Your task to perform on an android device: toggle notification dots Image 0: 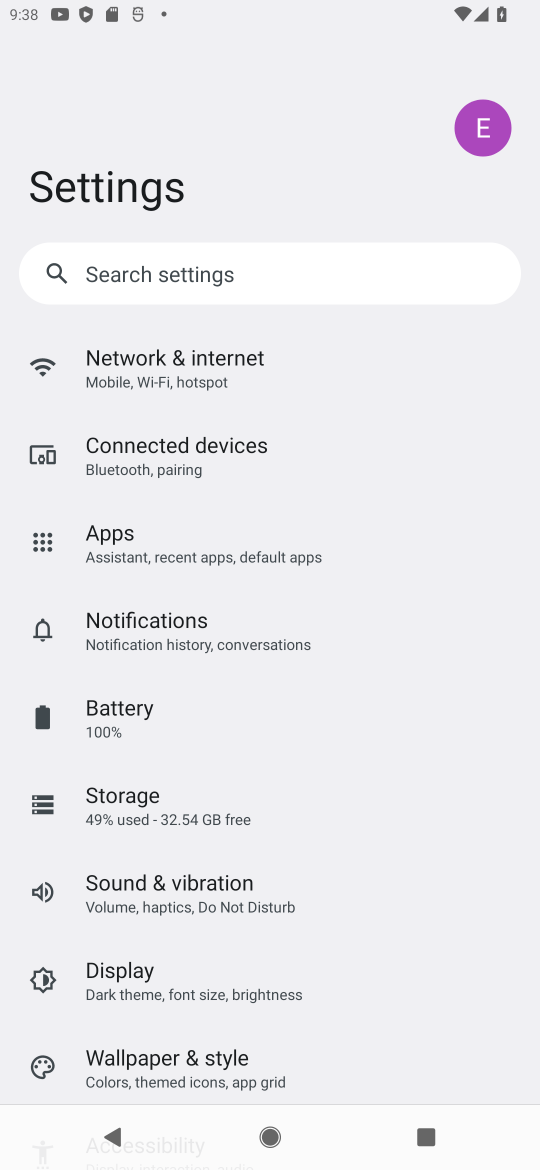
Step 0: press home button
Your task to perform on an android device: toggle notification dots Image 1: 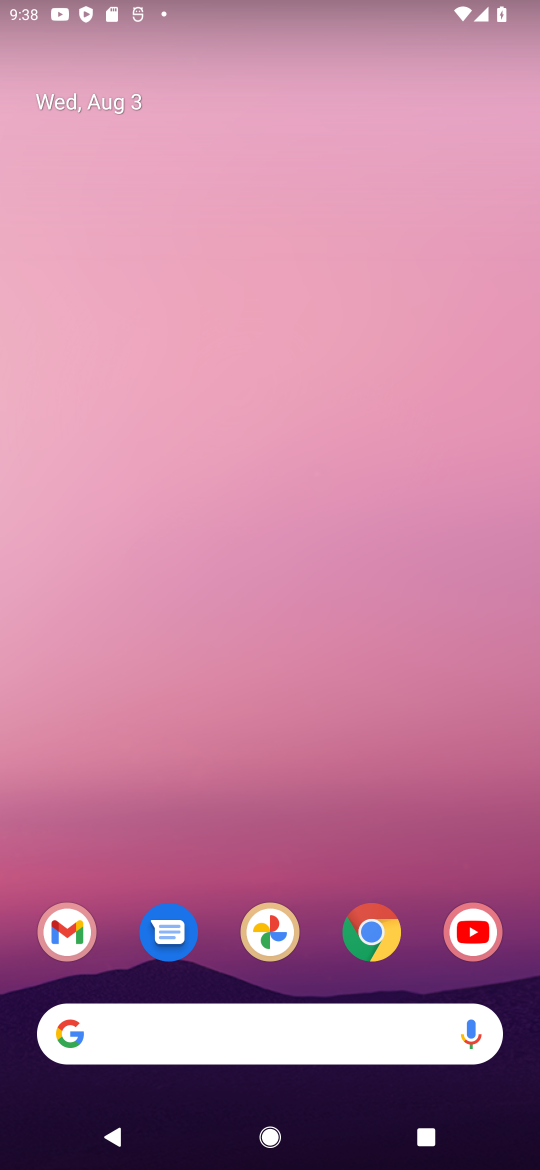
Step 1: drag from (406, 845) to (263, 35)
Your task to perform on an android device: toggle notification dots Image 2: 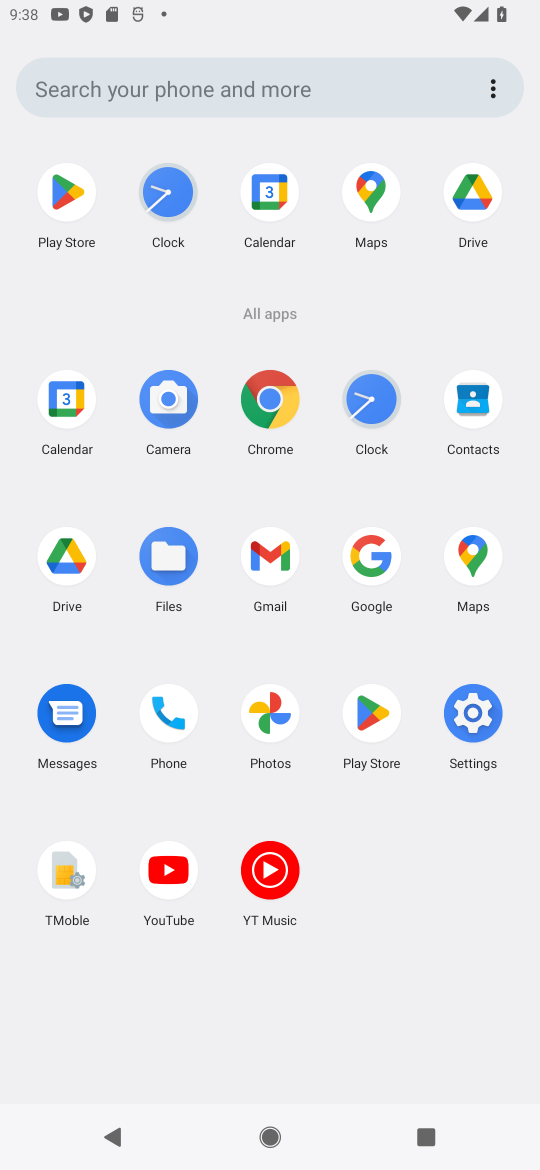
Step 2: click (463, 749)
Your task to perform on an android device: toggle notification dots Image 3: 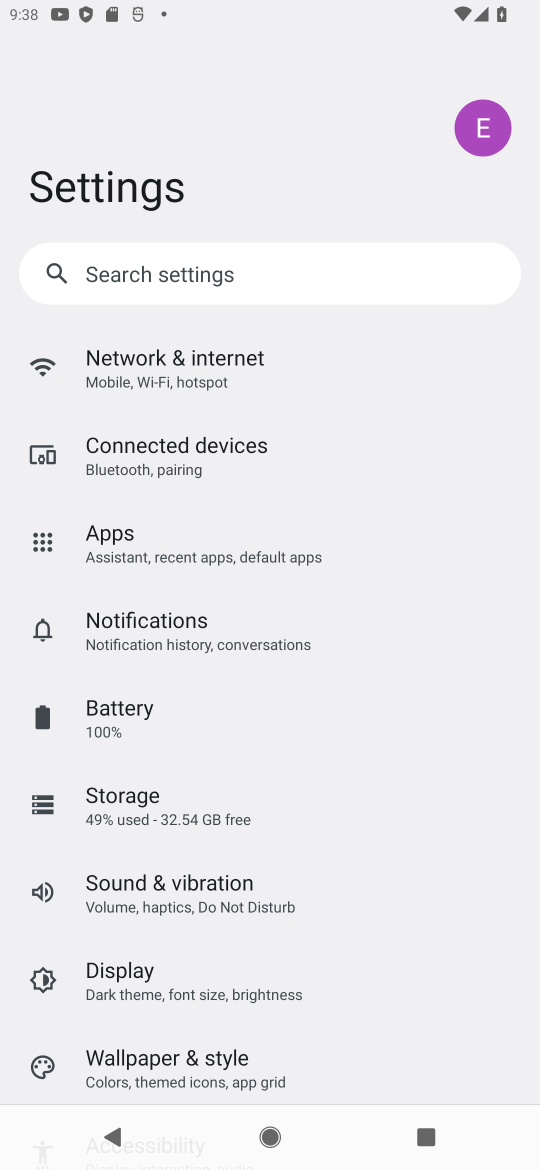
Step 3: click (270, 633)
Your task to perform on an android device: toggle notification dots Image 4: 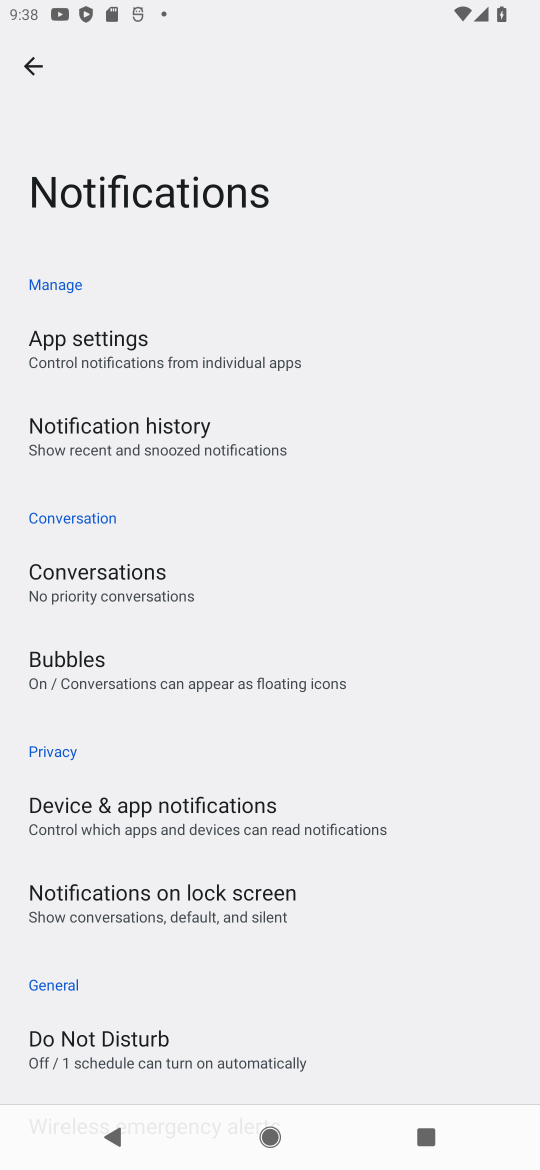
Step 4: drag from (316, 1029) to (309, 456)
Your task to perform on an android device: toggle notification dots Image 5: 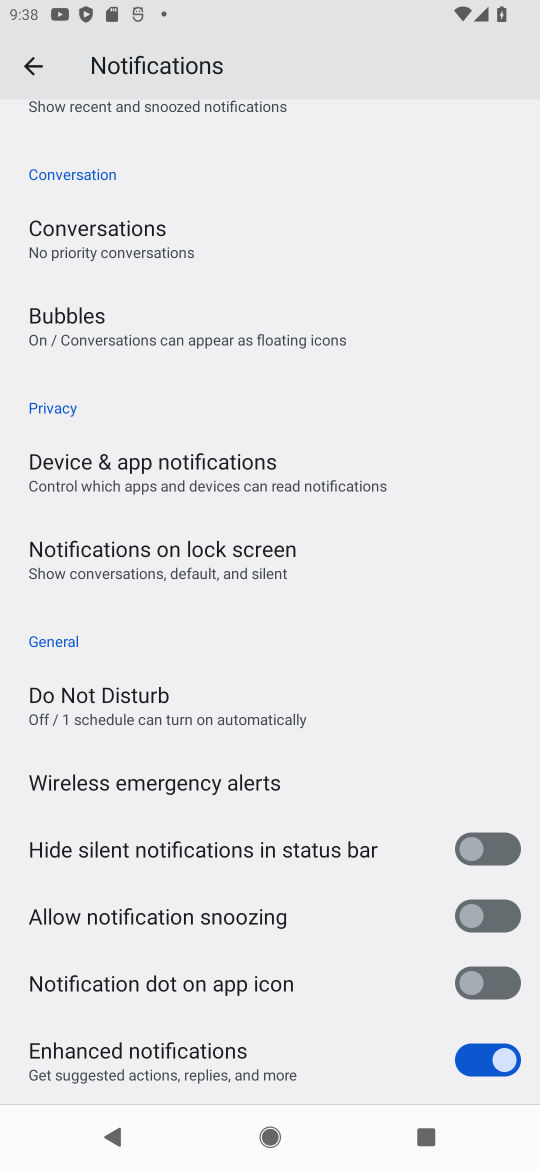
Step 5: drag from (357, 1026) to (320, 30)
Your task to perform on an android device: toggle notification dots Image 6: 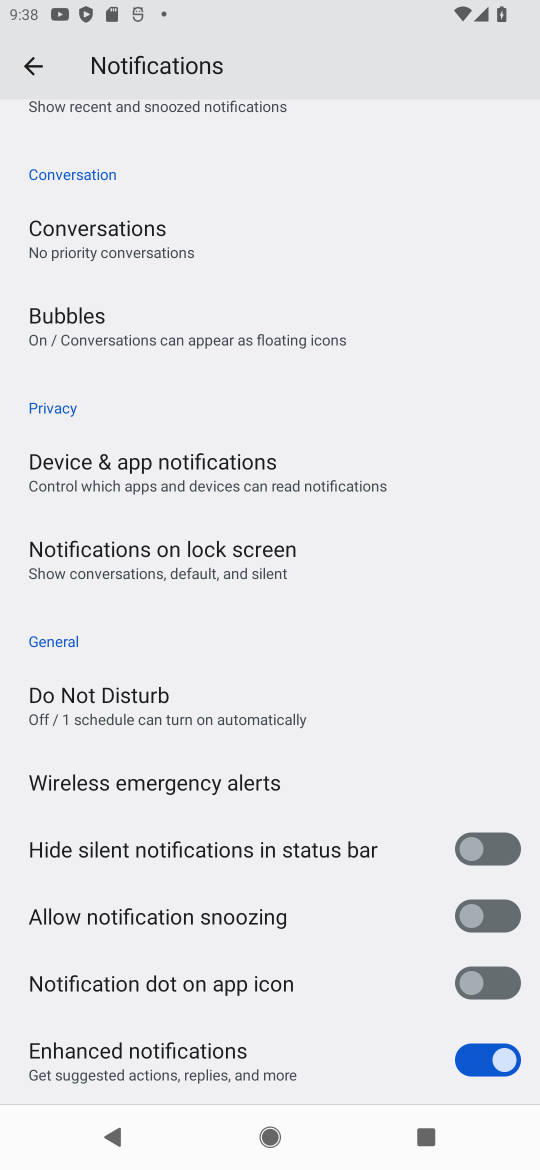
Step 6: click (501, 992)
Your task to perform on an android device: toggle notification dots Image 7: 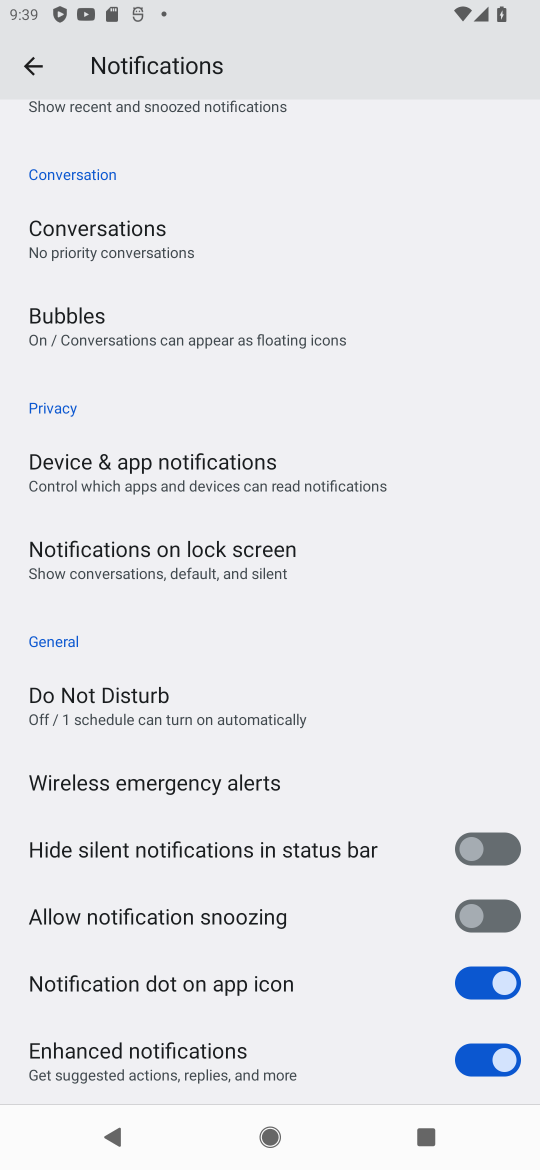
Step 7: task complete